Your task to perform on an android device: Search for Mexican restaurants on Maps Image 0: 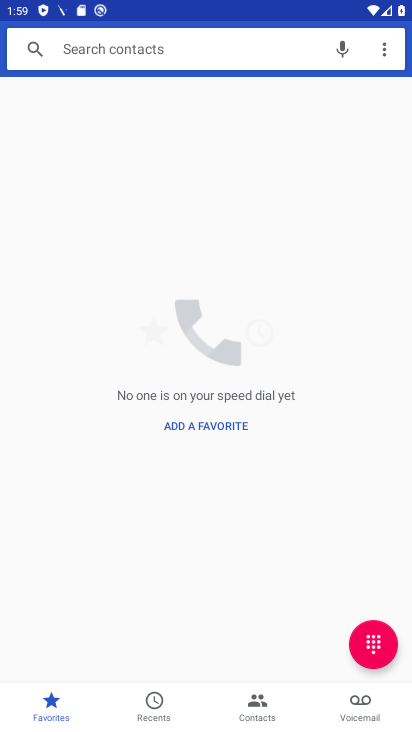
Step 0: press home button
Your task to perform on an android device: Search for Mexican restaurants on Maps Image 1: 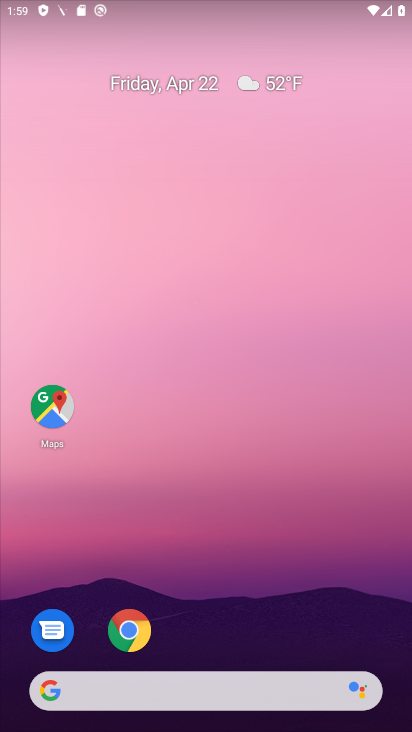
Step 1: click (57, 400)
Your task to perform on an android device: Search for Mexican restaurants on Maps Image 2: 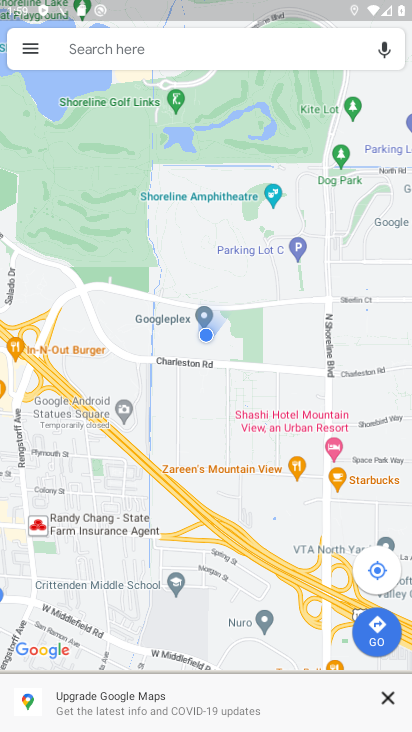
Step 2: click (95, 51)
Your task to perform on an android device: Search for Mexican restaurants on Maps Image 3: 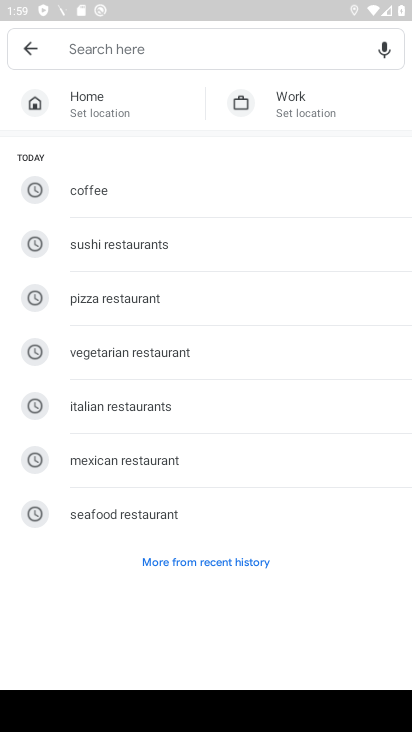
Step 3: click (124, 464)
Your task to perform on an android device: Search for Mexican restaurants on Maps Image 4: 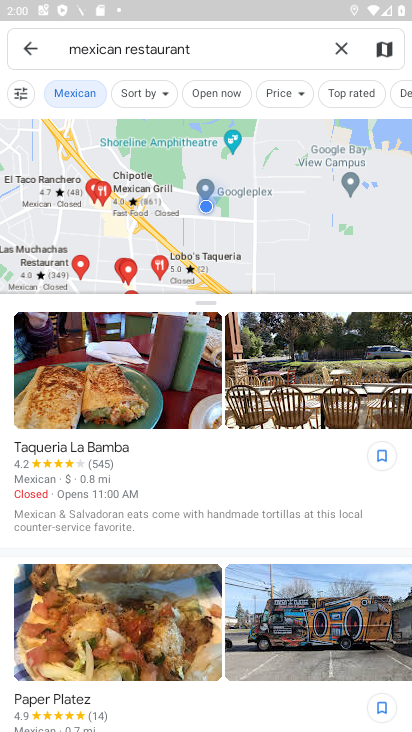
Step 4: task complete